Your task to perform on an android device: delete browsing data in the chrome app Image 0: 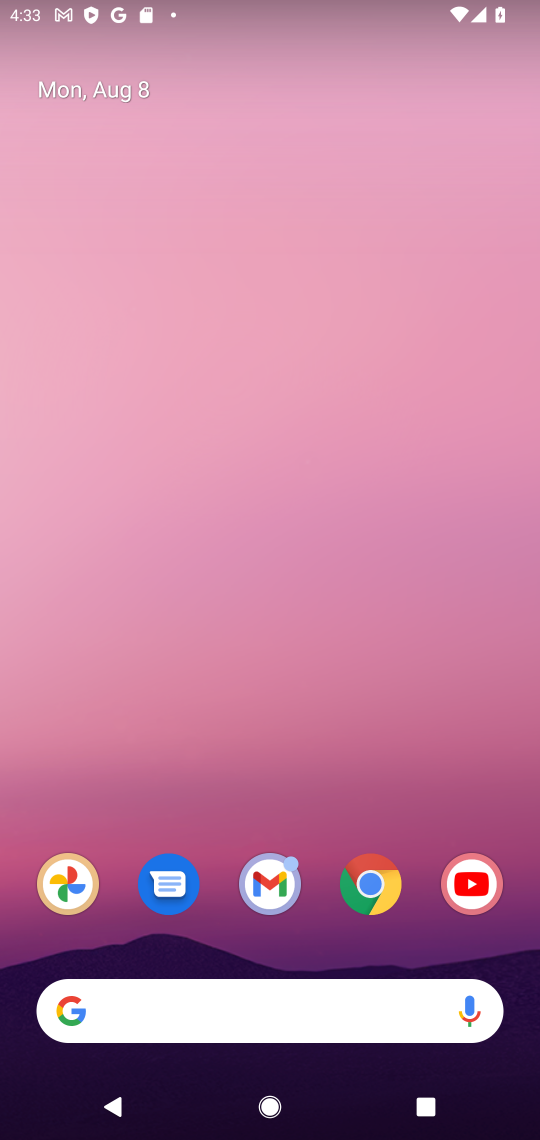
Step 0: click (362, 895)
Your task to perform on an android device: delete browsing data in the chrome app Image 1: 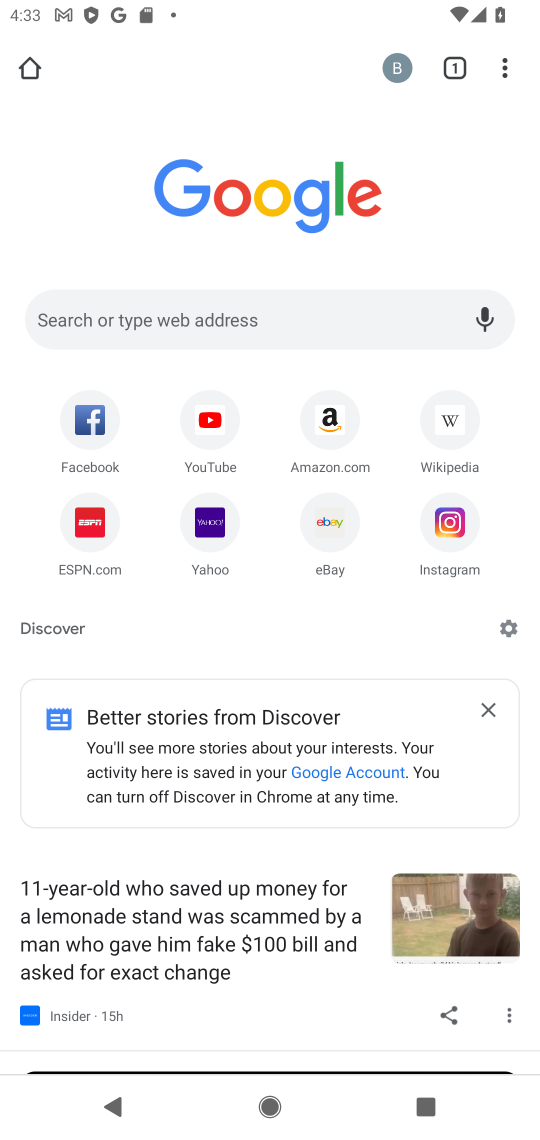
Step 1: drag from (495, 70) to (355, 256)
Your task to perform on an android device: delete browsing data in the chrome app Image 2: 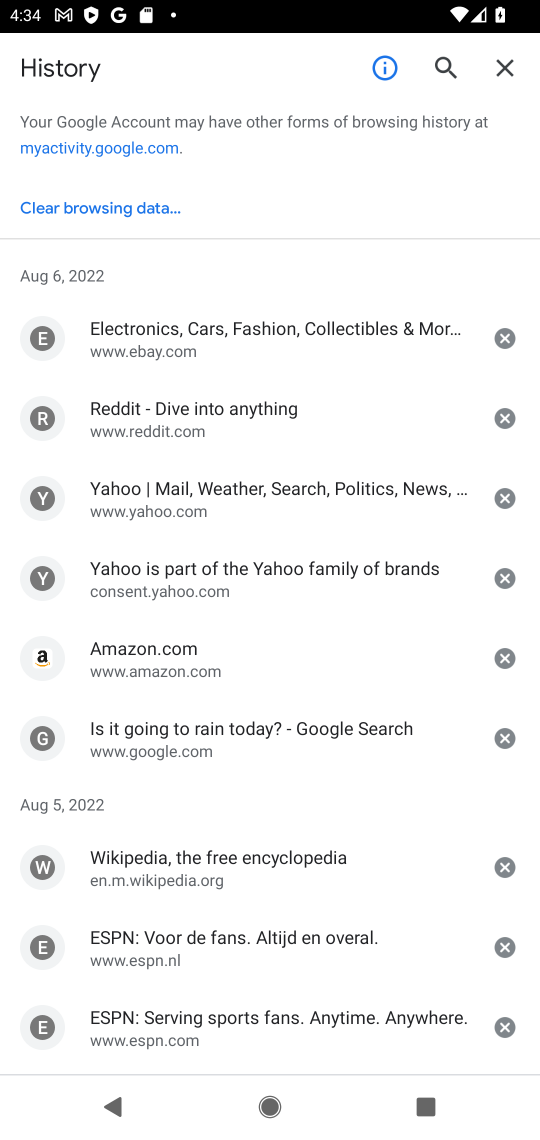
Step 2: click (108, 201)
Your task to perform on an android device: delete browsing data in the chrome app Image 3: 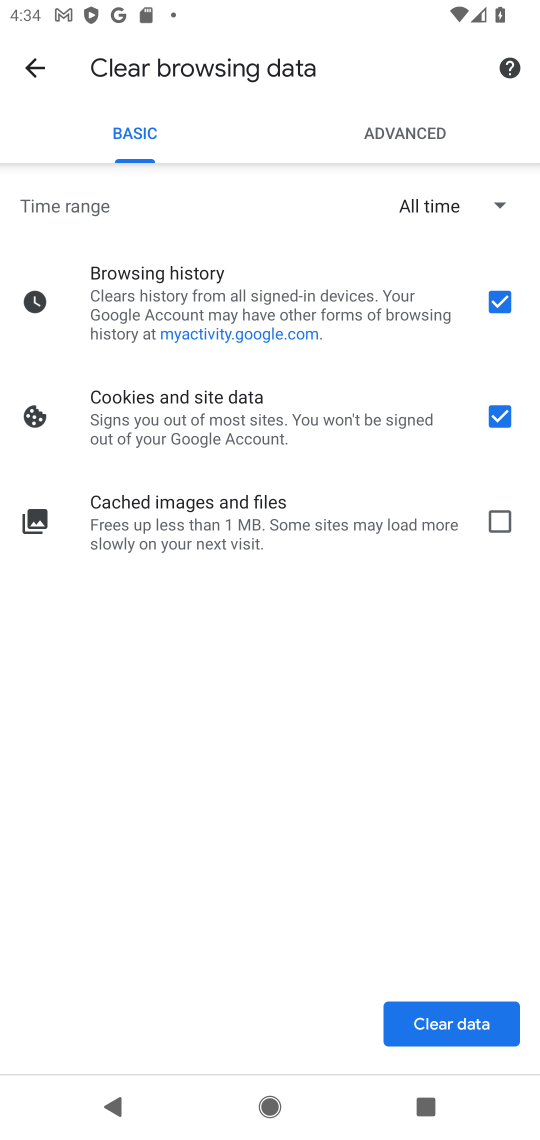
Step 3: click (457, 1021)
Your task to perform on an android device: delete browsing data in the chrome app Image 4: 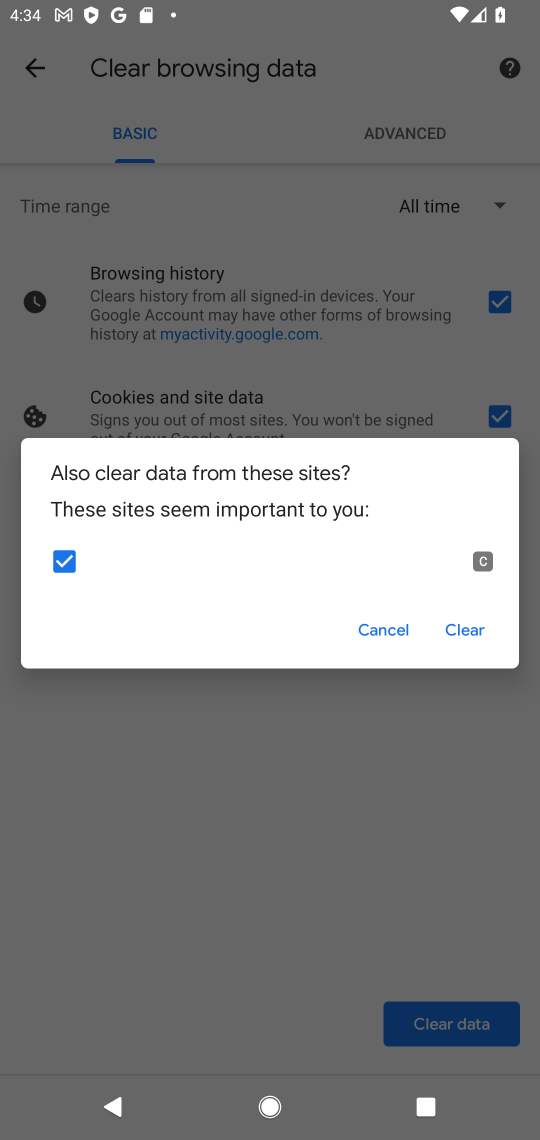
Step 4: click (450, 628)
Your task to perform on an android device: delete browsing data in the chrome app Image 5: 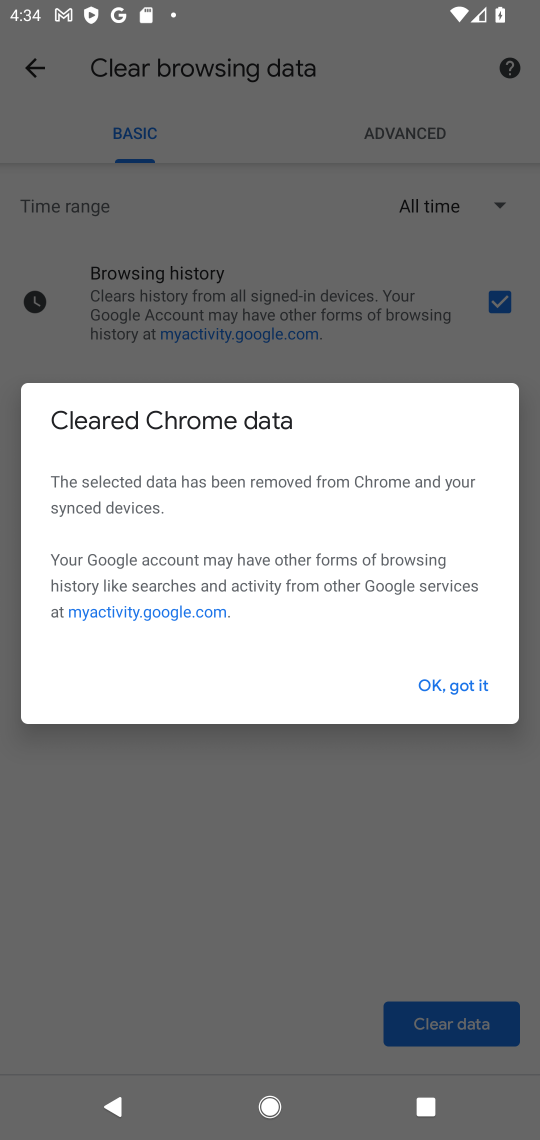
Step 5: click (456, 716)
Your task to perform on an android device: delete browsing data in the chrome app Image 6: 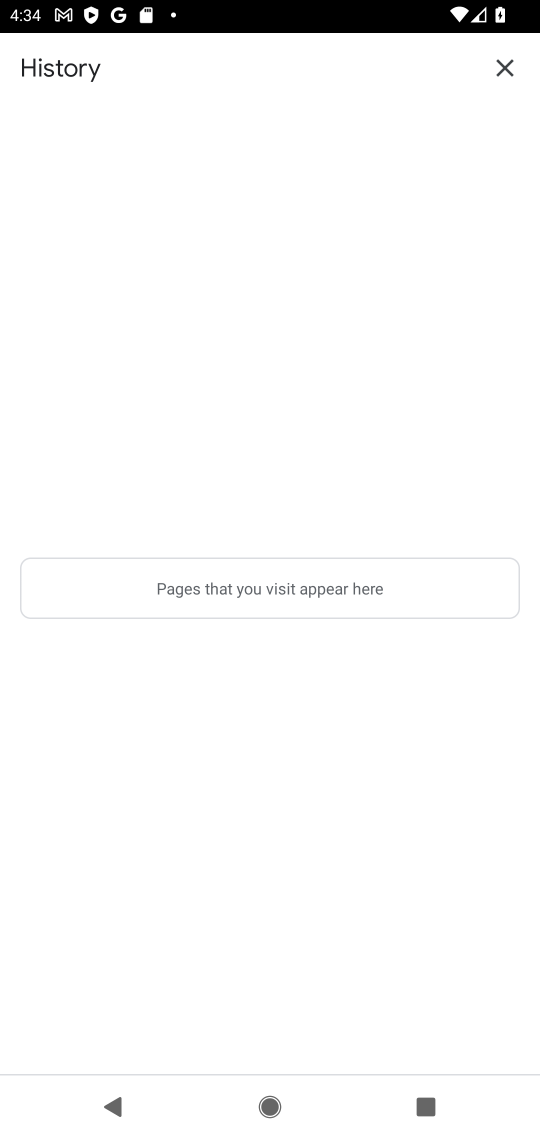
Step 6: task complete